Your task to perform on an android device: Go to Wikipedia Image 0: 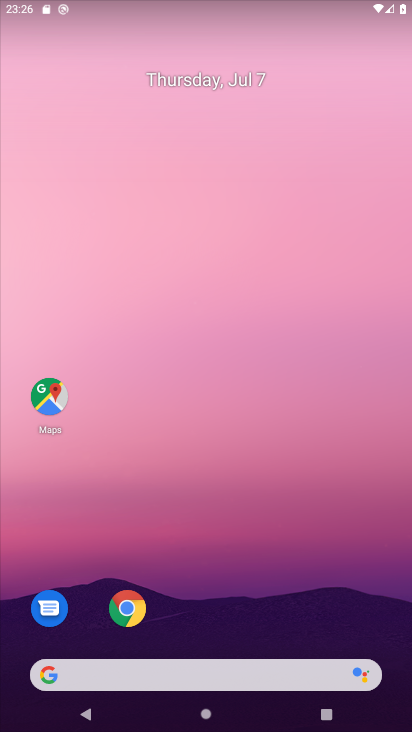
Step 0: drag from (233, 603) to (196, 328)
Your task to perform on an android device: Go to Wikipedia Image 1: 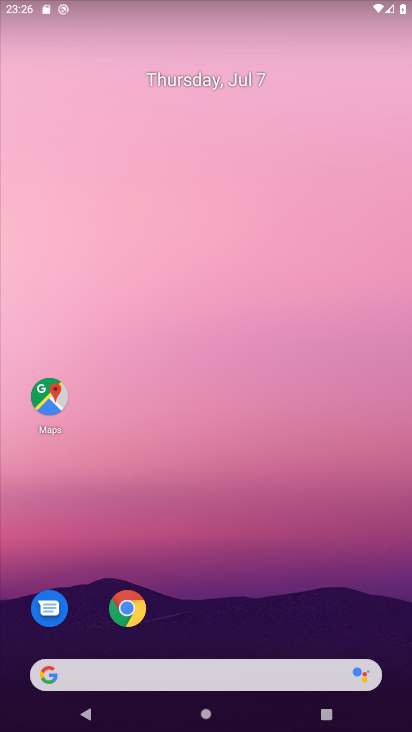
Step 1: click (120, 591)
Your task to perform on an android device: Go to Wikipedia Image 2: 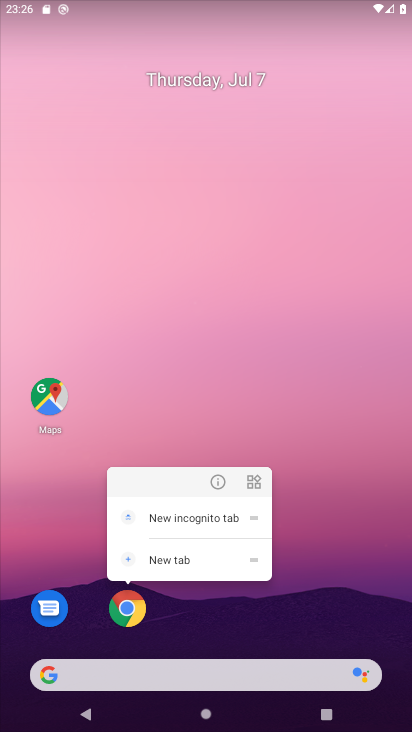
Step 2: click (131, 606)
Your task to perform on an android device: Go to Wikipedia Image 3: 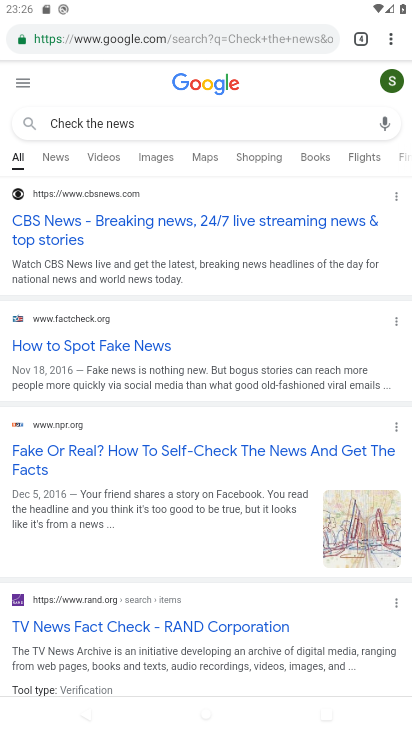
Step 3: click (387, 38)
Your task to perform on an android device: Go to Wikipedia Image 4: 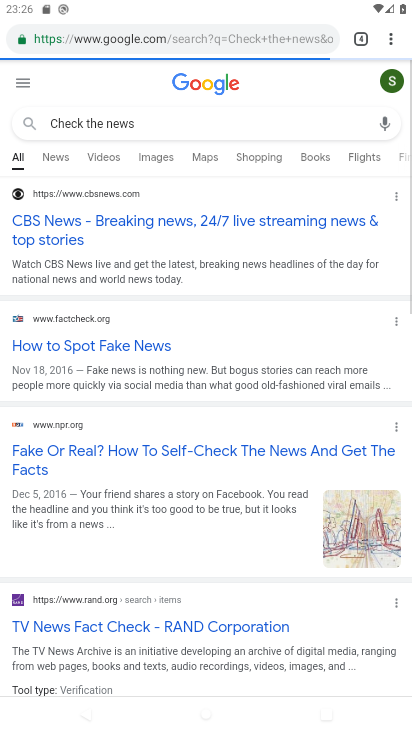
Step 4: click (387, 38)
Your task to perform on an android device: Go to Wikipedia Image 5: 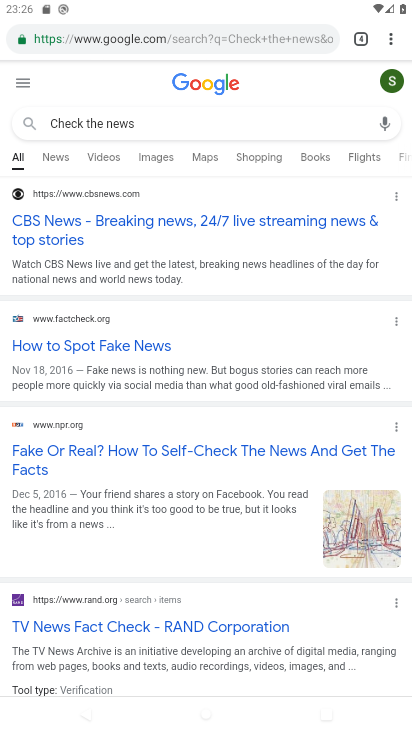
Step 5: click (381, 40)
Your task to perform on an android device: Go to Wikipedia Image 6: 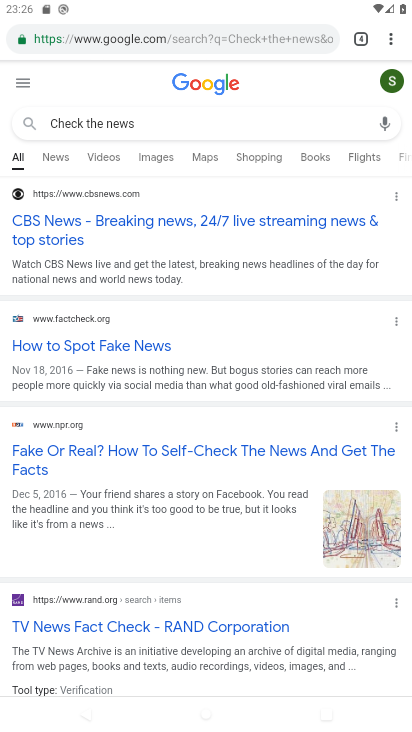
Step 6: click (392, 44)
Your task to perform on an android device: Go to Wikipedia Image 7: 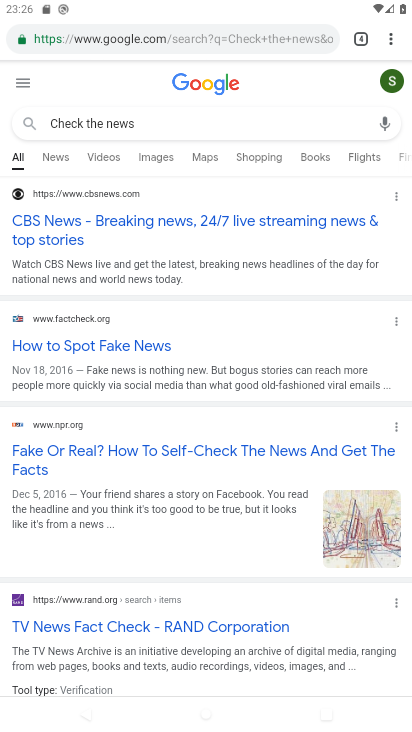
Step 7: click (392, 44)
Your task to perform on an android device: Go to Wikipedia Image 8: 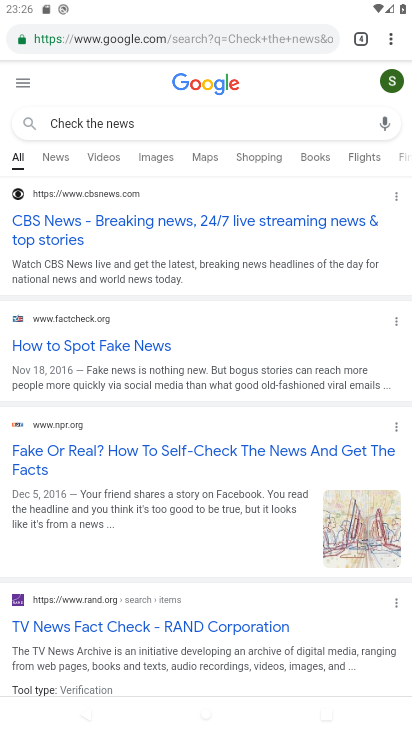
Step 8: click (367, 36)
Your task to perform on an android device: Go to Wikipedia Image 9: 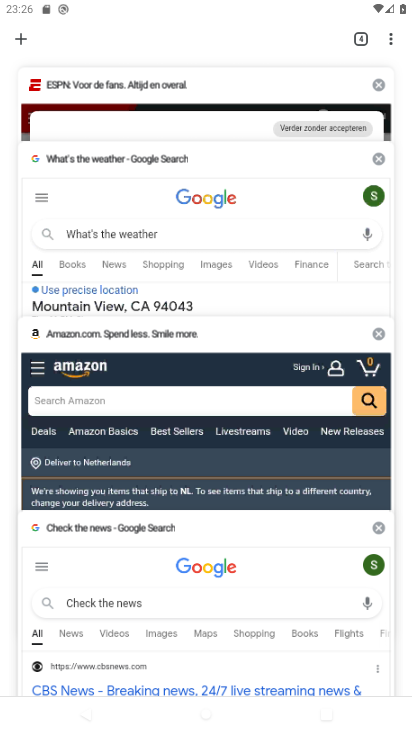
Step 9: click (17, 34)
Your task to perform on an android device: Go to Wikipedia Image 10: 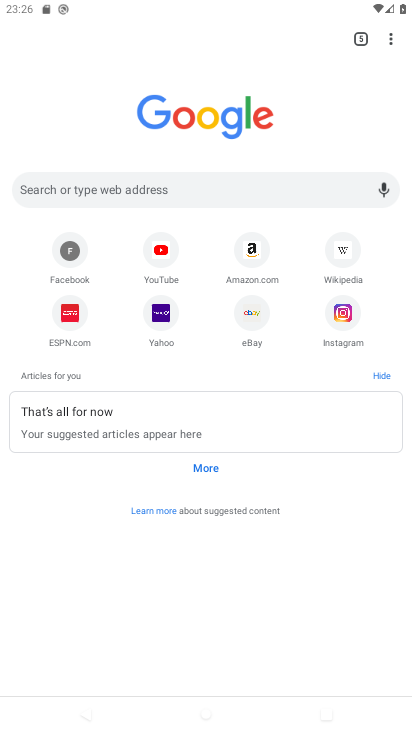
Step 10: click (327, 249)
Your task to perform on an android device: Go to Wikipedia Image 11: 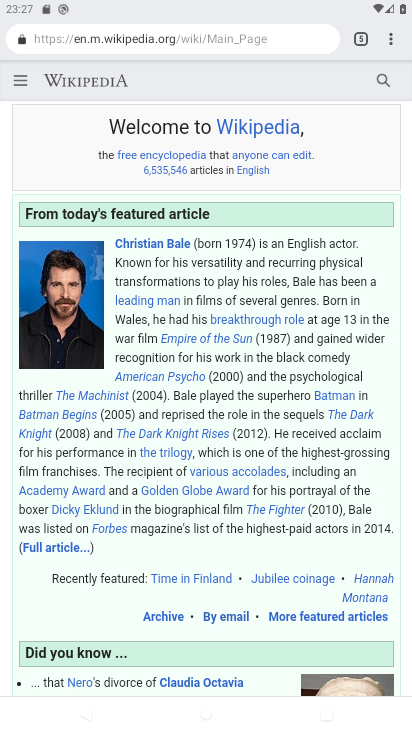
Step 11: task complete